Your task to perform on an android device: Open calendar and show me the third week of next month Image 0: 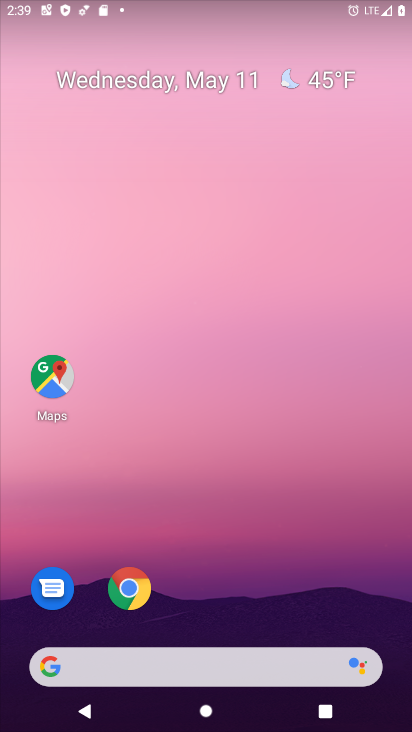
Step 0: drag from (238, 606) to (238, 263)
Your task to perform on an android device: Open calendar and show me the third week of next month Image 1: 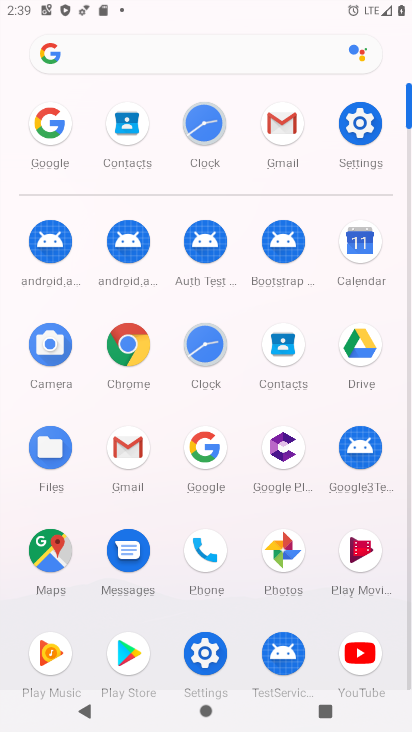
Step 1: click (361, 267)
Your task to perform on an android device: Open calendar and show me the third week of next month Image 2: 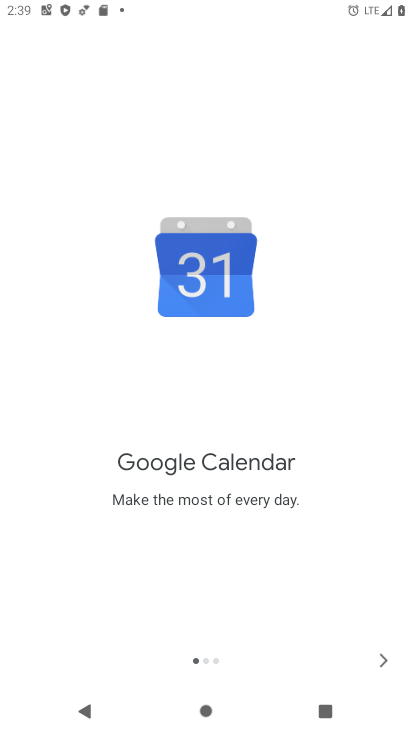
Step 2: click (382, 655)
Your task to perform on an android device: Open calendar and show me the third week of next month Image 3: 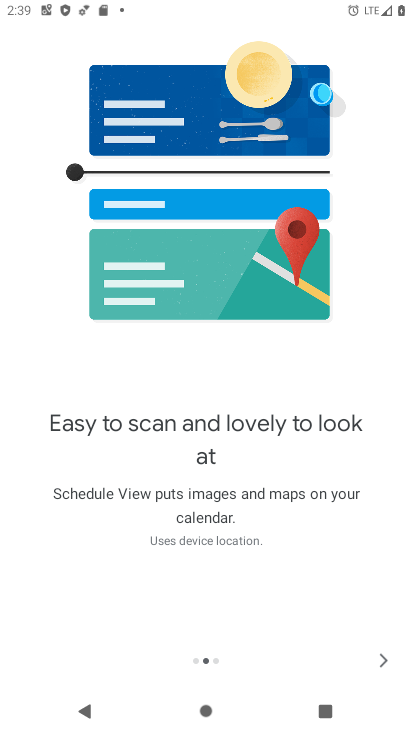
Step 3: click (382, 655)
Your task to perform on an android device: Open calendar and show me the third week of next month Image 4: 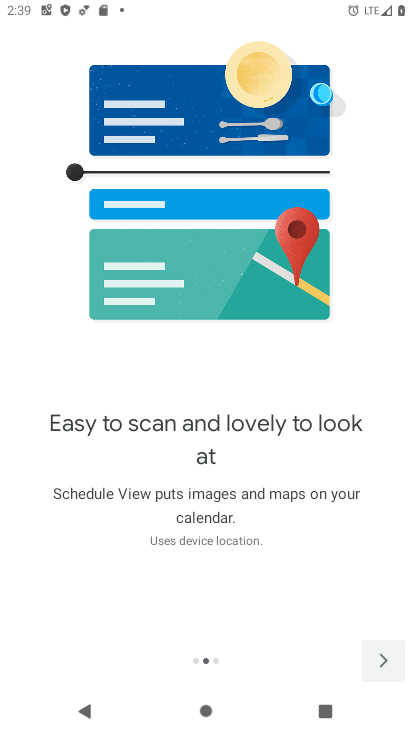
Step 4: click (383, 656)
Your task to perform on an android device: Open calendar and show me the third week of next month Image 5: 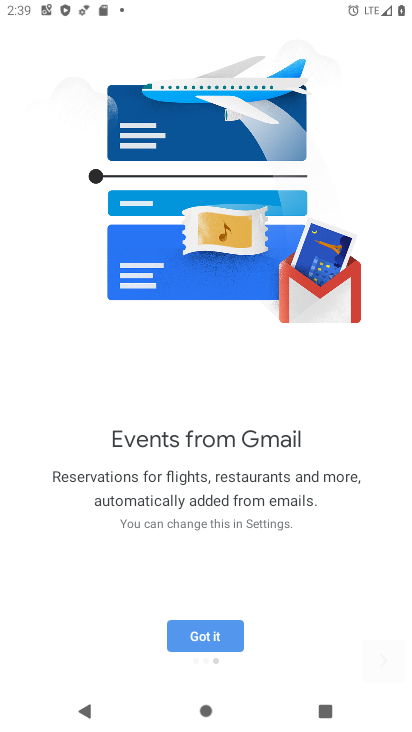
Step 5: click (383, 656)
Your task to perform on an android device: Open calendar and show me the third week of next month Image 6: 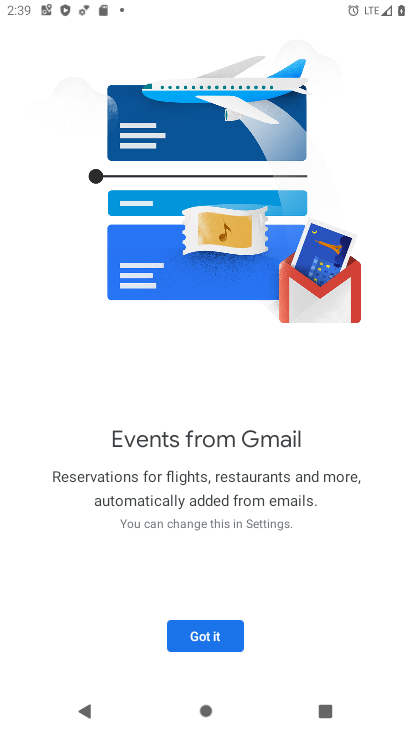
Step 6: click (383, 656)
Your task to perform on an android device: Open calendar and show me the third week of next month Image 7: 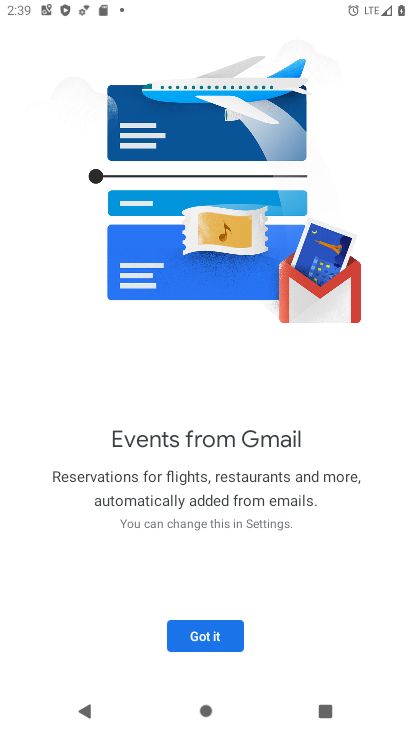
Step 7: click (206, 638)
Your task to perform on an android device: Open calendar and show me the third week of next month Image 8: 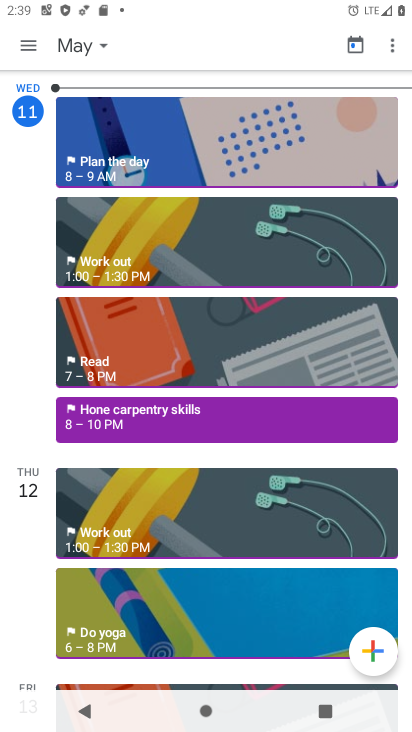
Step 8: click (226, 634)
Your task to perform on an android device: Open calendar and show me the third week of next month Image 9: 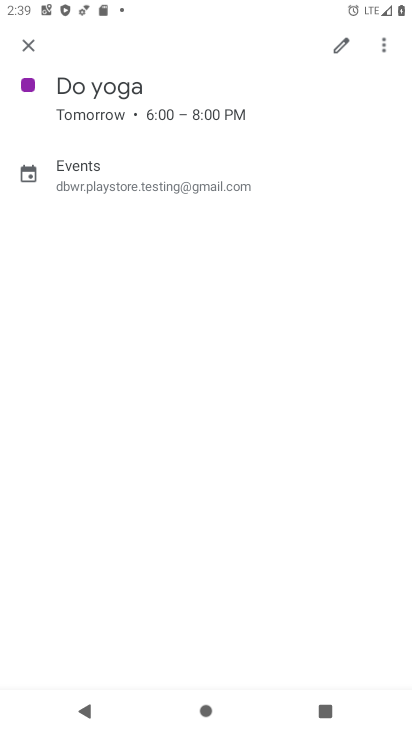
Step 9: click (29, 50)
Your task to perform on an android device: Open calendar and show me the third week of next month Image 10: 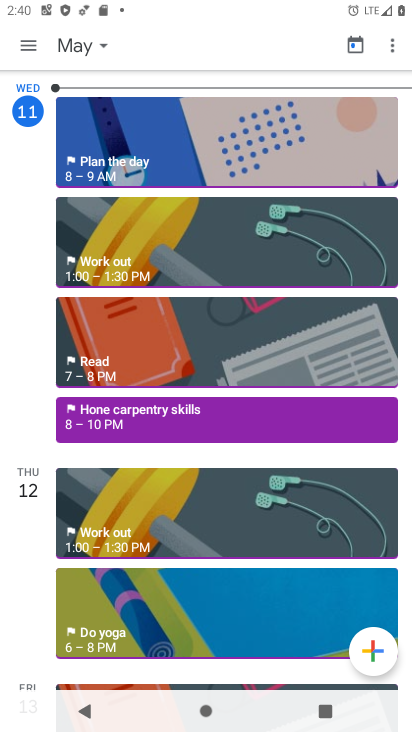
Step 10: click (96, 40)
Your task to perform on an android device: Open calendar and show me the third week of next month Image 11: 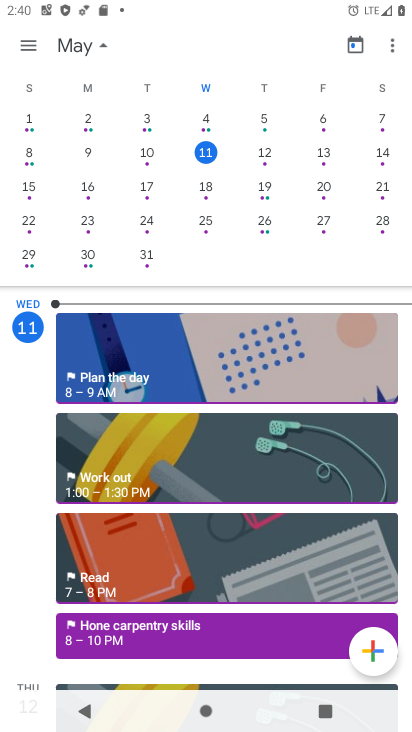
Step 11: drag from (349, 187) to (37, 196)
Your task to perform on an android device: Open calendar and show me the third week of next month Image 12: 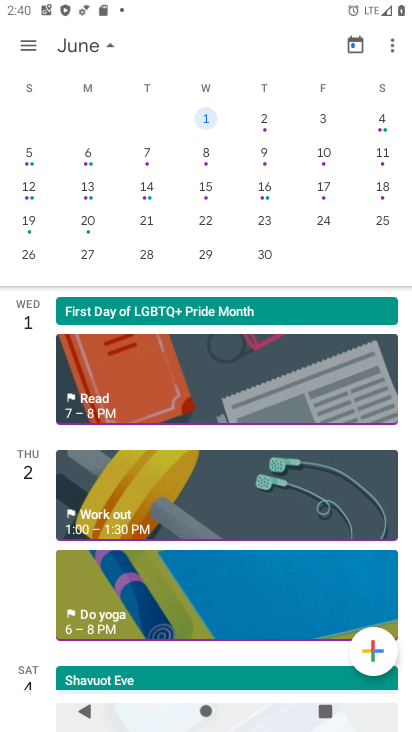
Step 12: click (29, 195)
Your task to perform on an android device: Open calendar and show me the third week of next month Image 13: 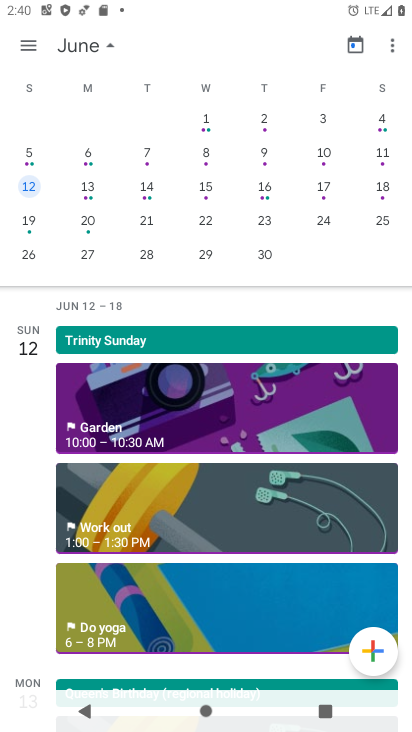
Step 13: task complete